Your task to perform on an android device: Open calendar and show me the fourth week of next month Image 0: 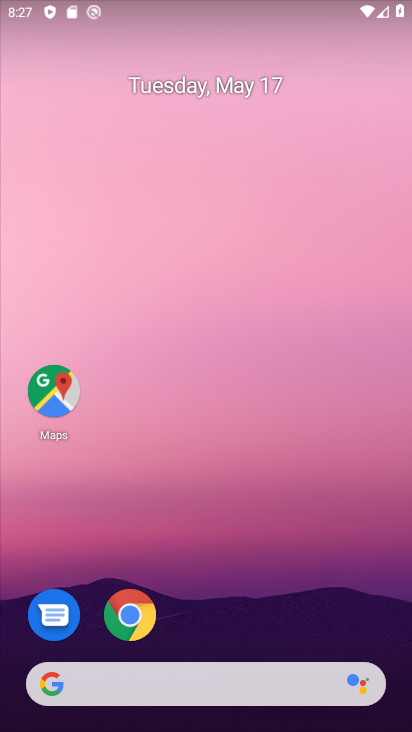
Step 0: drag from (208, 594) to (179, 185)
Your task to perform on an android device: Open calendar and show me the fourth week of next month Image 1: 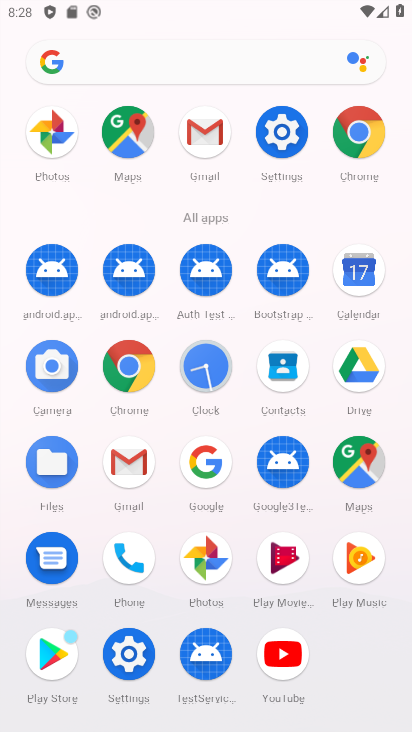
Step 1: click (361, 271)
Your task to perform on an android device: Open calendar and show me the fourth week of next month Image 2: 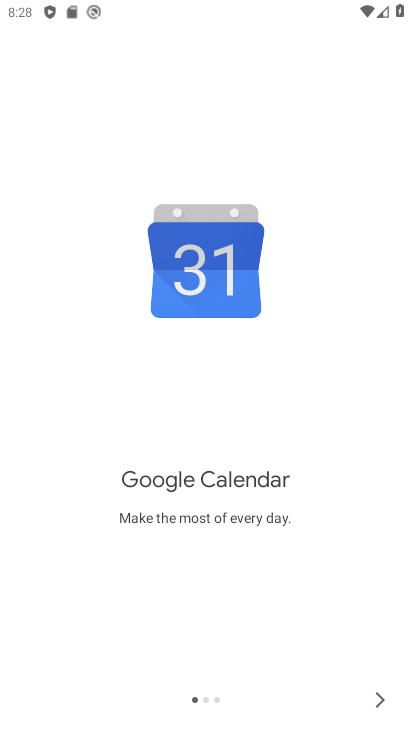
Step 2: click (376, 693)
Your task to perform on an android device: Open calendar and show me the fourth week of next month Image 3: 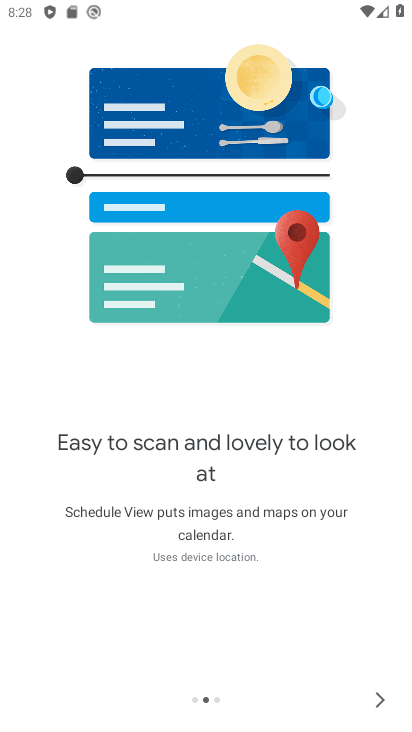
Step 3: click (376, 693)
Your task to perform on an android device: Open calendar and show me the fourth week of next month Image 4: 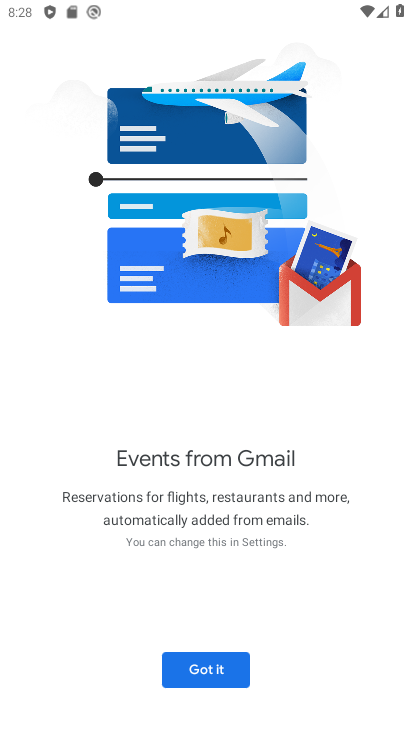
Step 4: click (177, 664)
Your task to perform on an android device: Open calendar and show me the fourth week of next month Image 5: 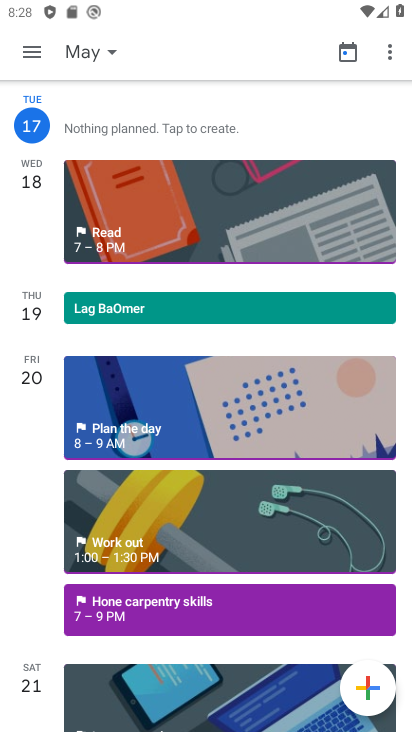
Step 5: click (80, 52)
Your task to perform on an android device: Open calendar and show me the fourth week of next month Image 6: 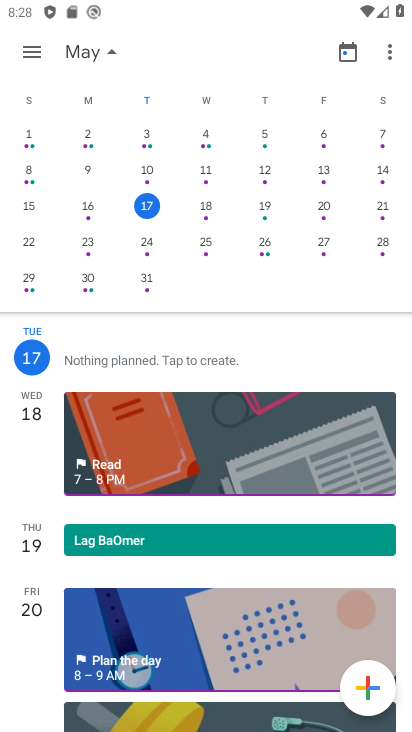
Step 6: drag from (391, 176) to (8, 230)
Your task to perform on an android device: Open calendar and show me the fourth week of next month Image 7: 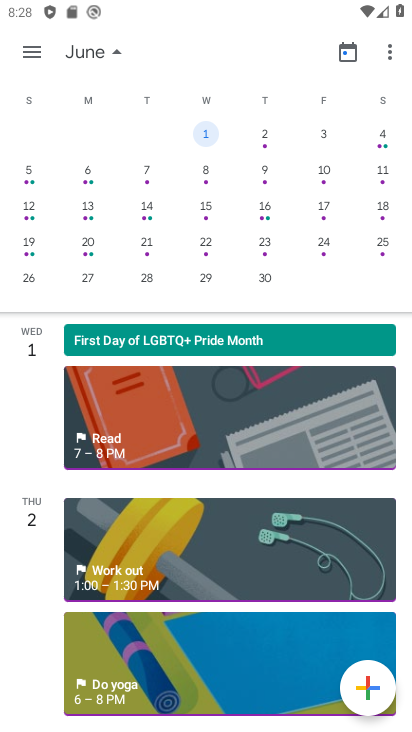
Step 7: click (149, 276)
Your task to perform on an android device: Open calendar and show me the fourth week of next month Image 8: 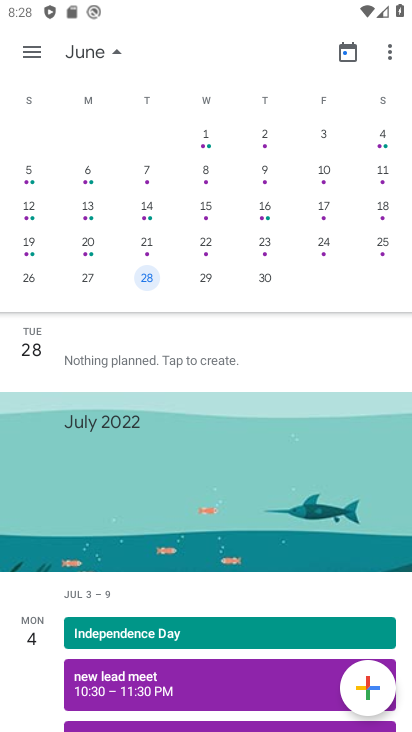
Step 8: task complete